Your task to perform on an android device: Go to display settings Image 0: 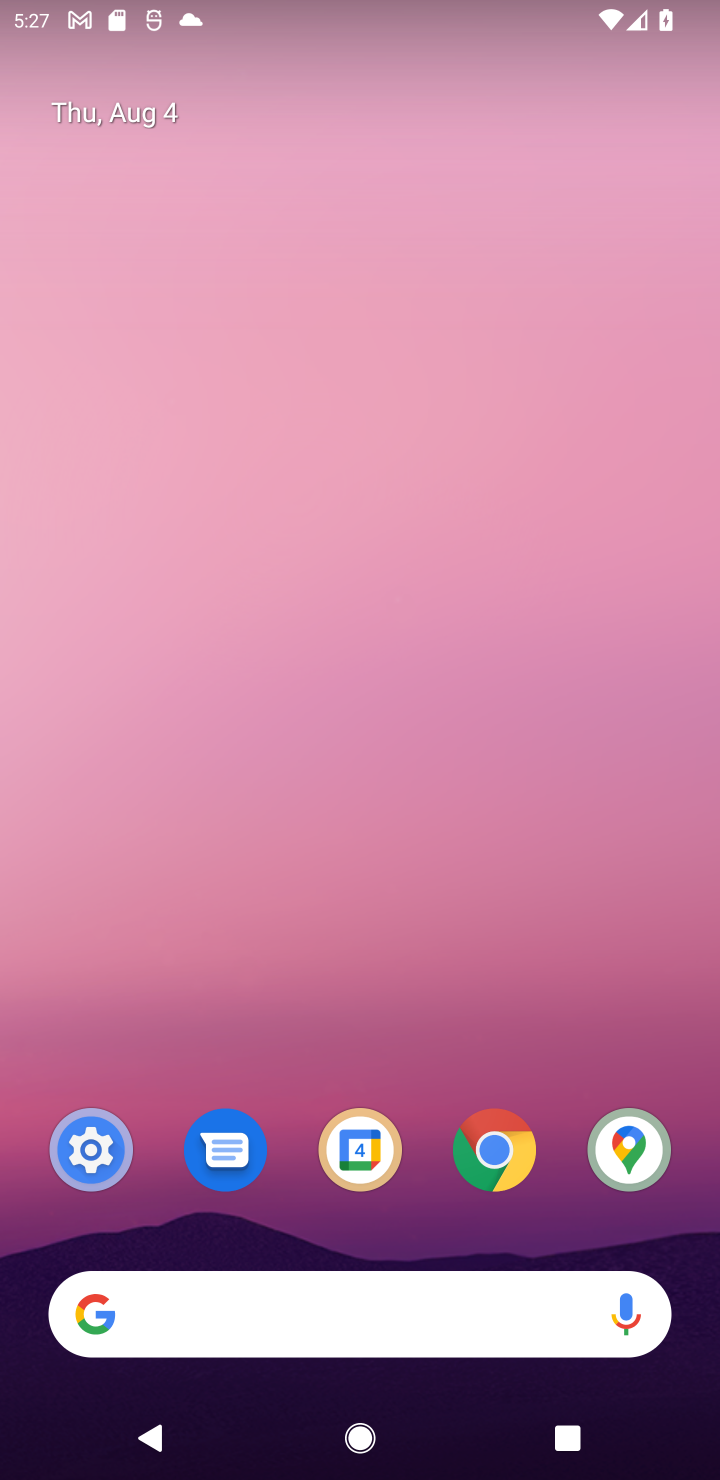
Step 0: click (96, 1159)
Your task to perform on an android device: Go to display settings Image 1: 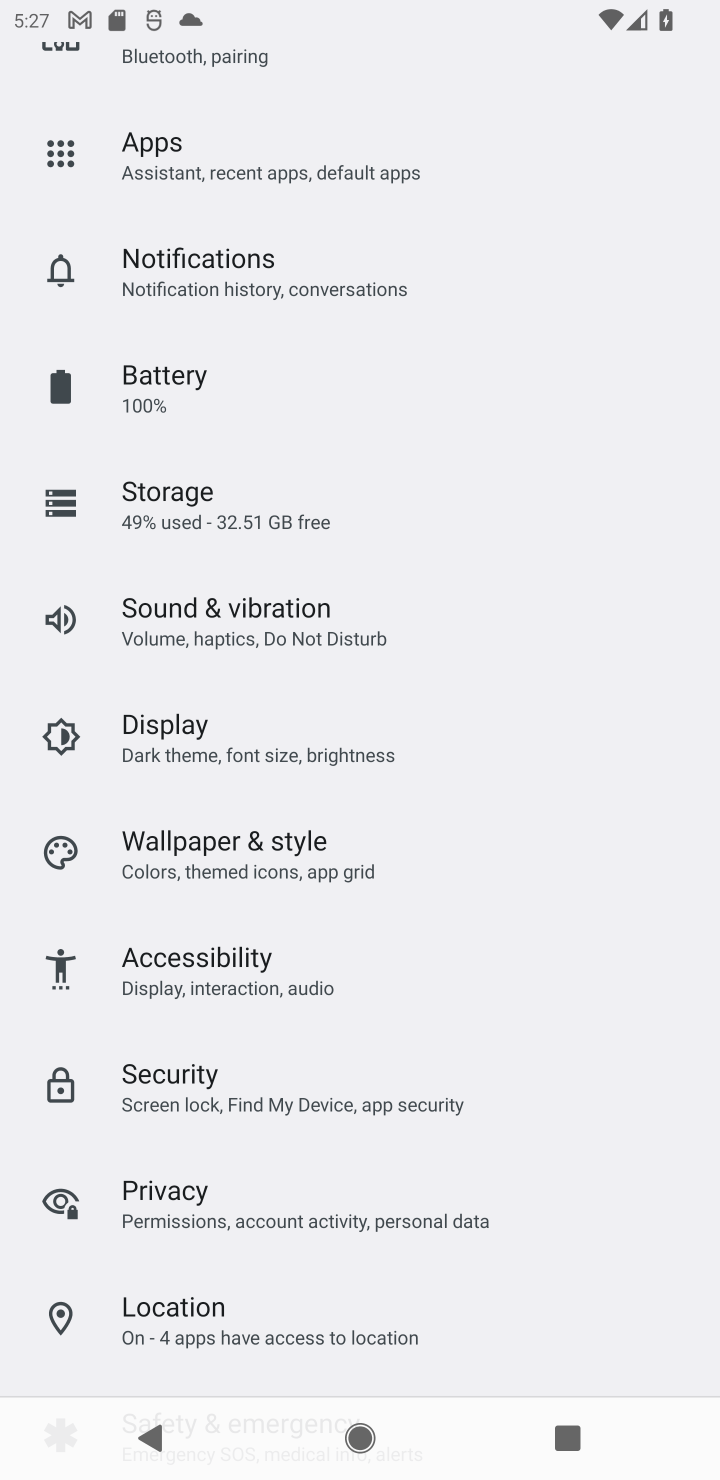
Step 1: click (166, 730)
Your task to perform on an android device: Go to display settings Image 2: 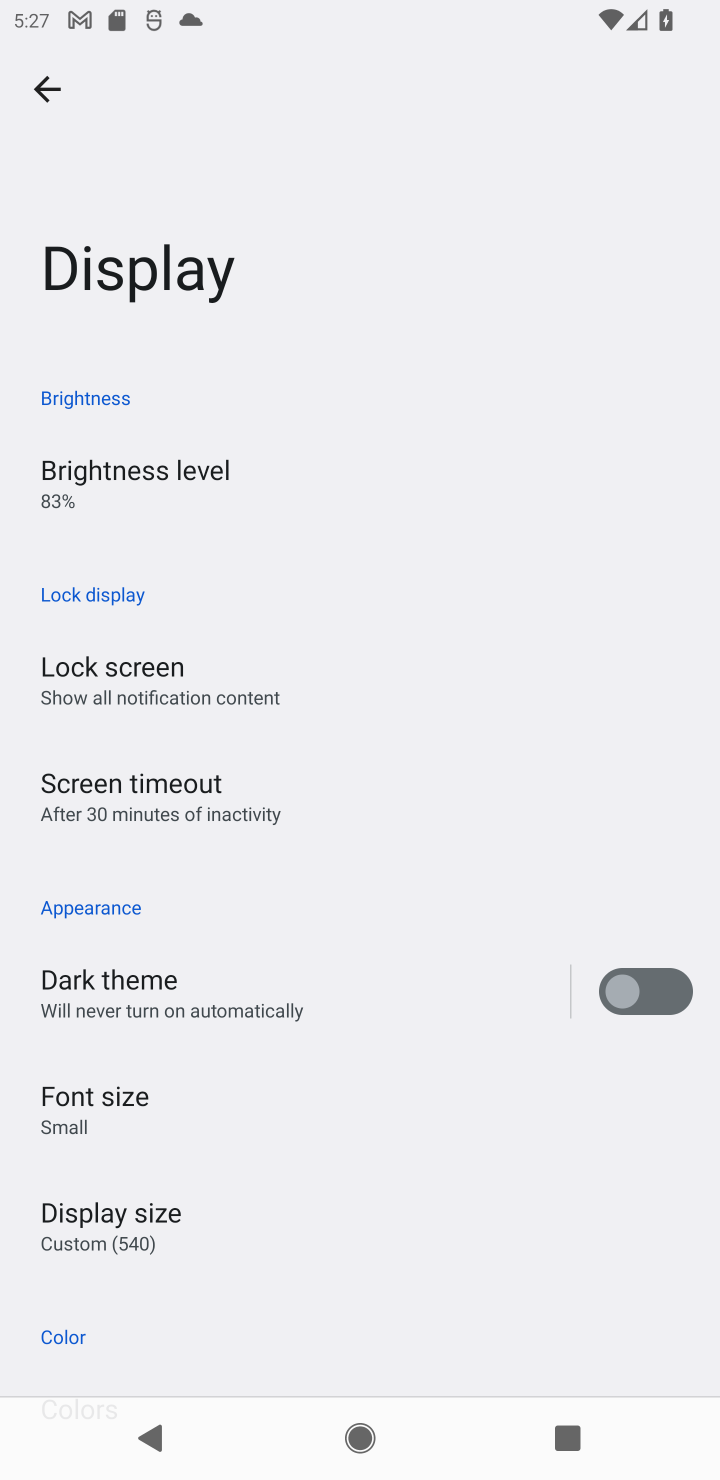
Step 2: task complete